Your task to perform on an android device: What's the weather going to be this weekend? Image 0: 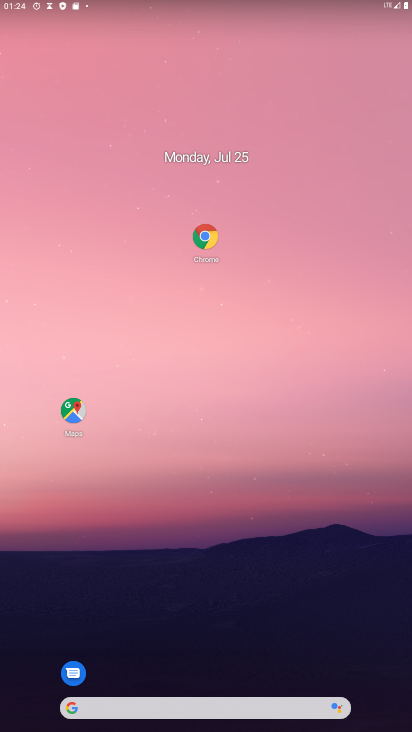
Step 0: press home button
Your task to perform on an android device: What's the weather going to be this weekend? Image 1: 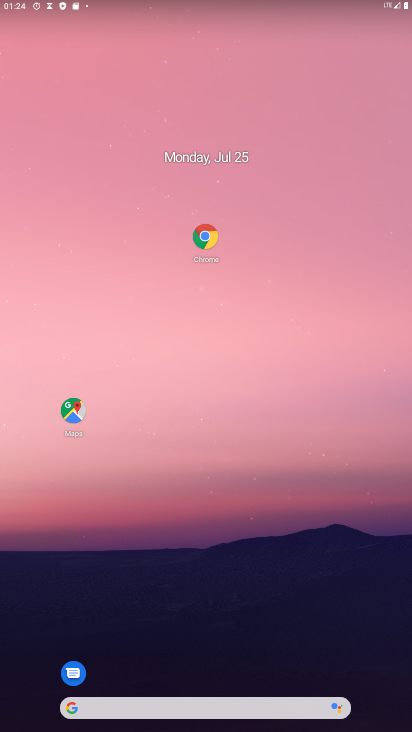
Step 1: drag from (187, 682) to (257, 35)
Your task to perform on an android device: What's the weather going to be this weekend? Image 2: 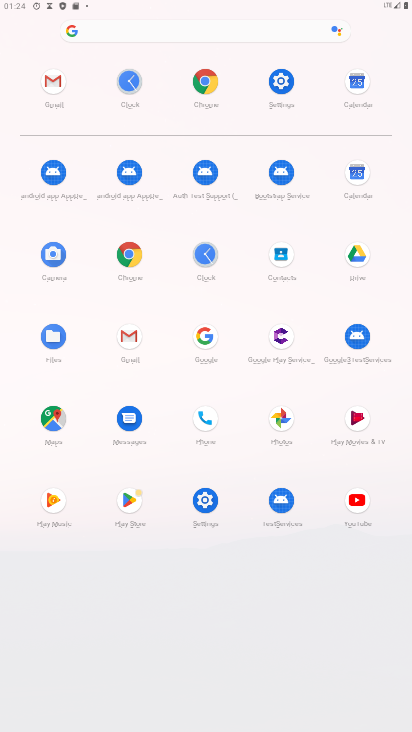
Step 2: click (360, 169)
Your task to perform on an android device: What's the weather going to be this weekend? Image 3: 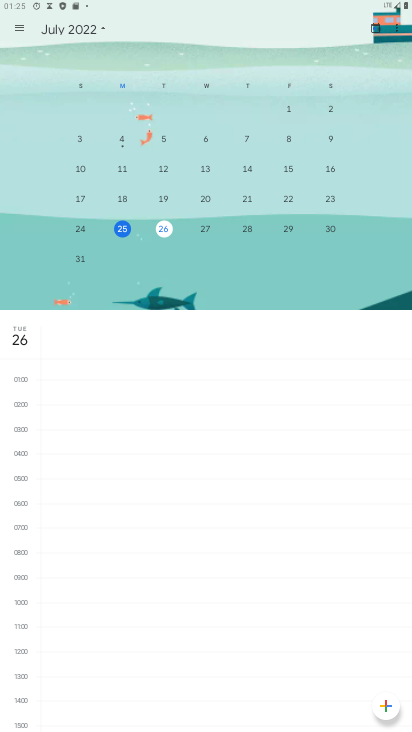
Step 3: click (329, 231)
Your task to perform on an android device: What's the weather going to be this weekend? Image 4: 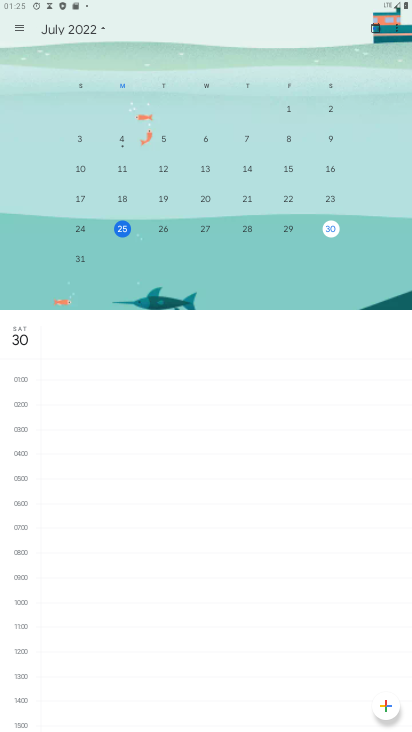
Step 4: task complete